Your task to perform on an android device: turn off notifications settings in the gmail app Image 0: 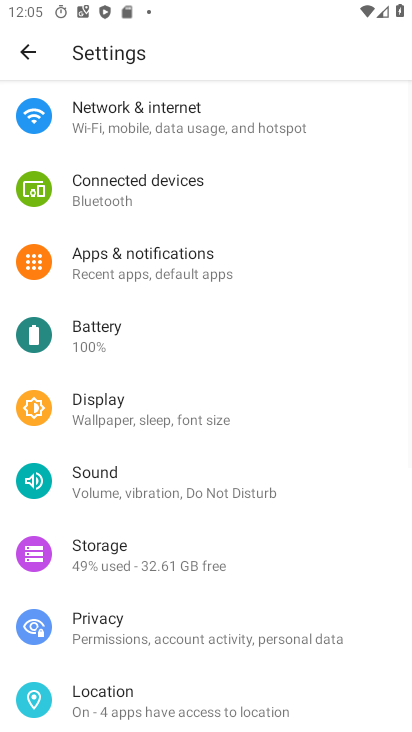
Step 0: press home button
Your task to perform on an android device: turn off notifications settings in the gmail app Image 1: 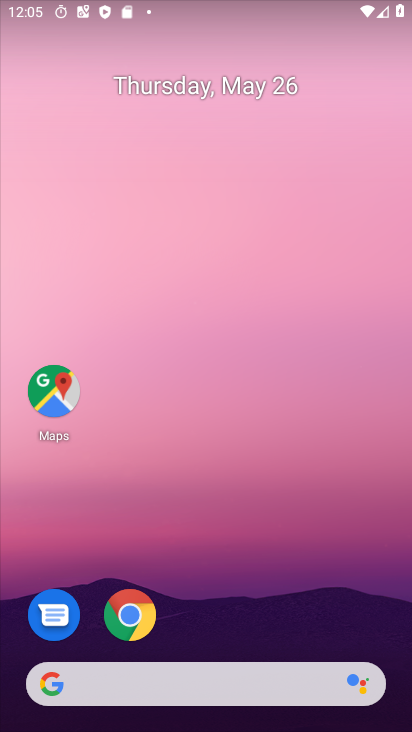
Step 1: drag from (239, 627) to (188, 277)
Your task to perform on an android device: turn off notifications settings in the gmail app Image 2: 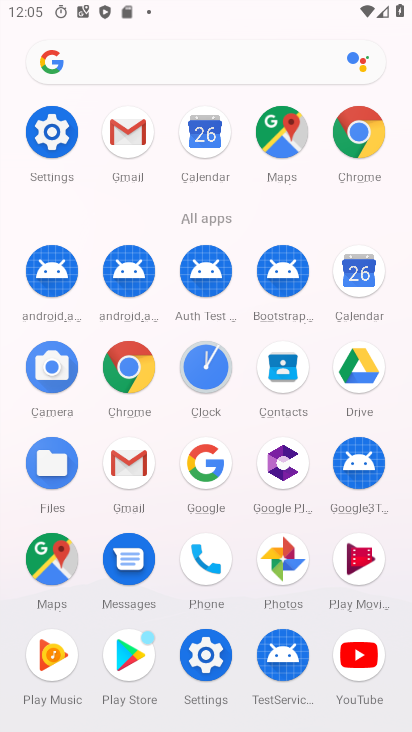
Step 2: click (127, 147)
Your task to perform on an android device: turn off notifications settings in the gmail app Image 3: 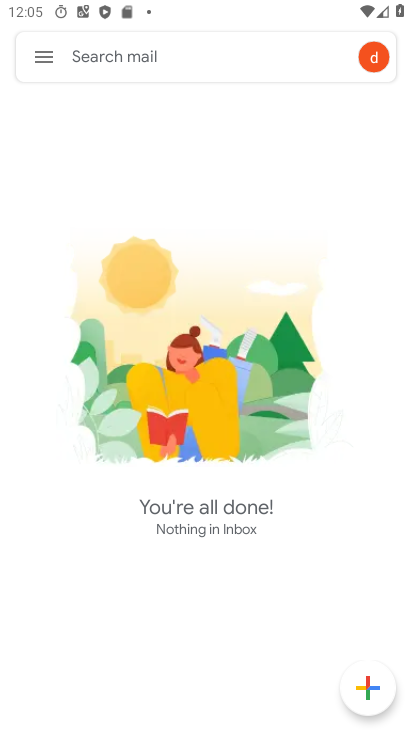
Step 3: click (44, 59)
Your task to perform on an android device: turn off notifications settings in the gmail app Image 4: 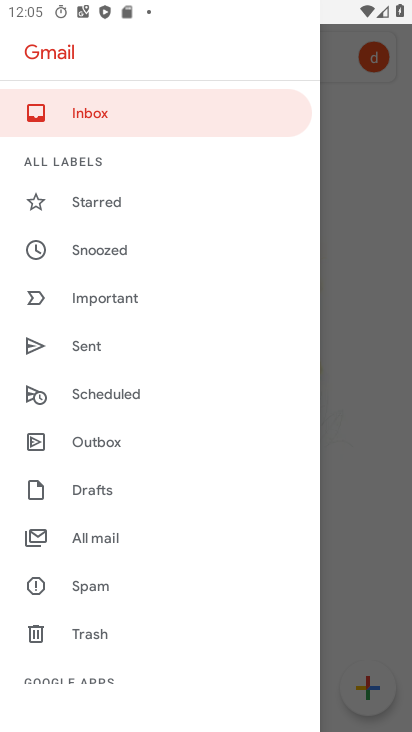
Step 4: drag from (147, 654) to (107, 241)
Your task to perform on an android device: turn off notifications settings in the gmail app Image 5: 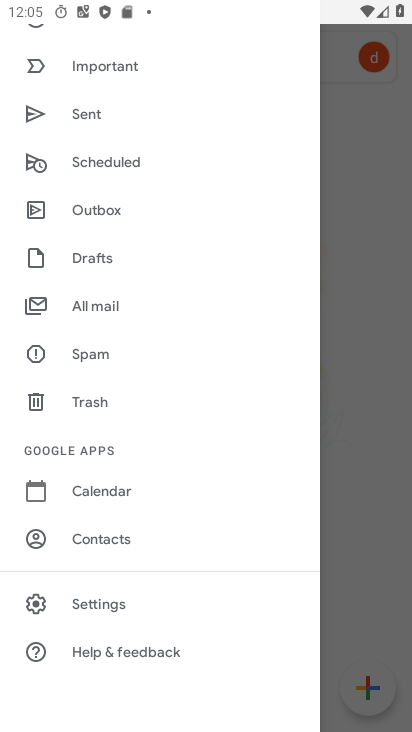
Step 5: click (142, 609)
Your task to perform on an android device: turn off notifications settings in the gmail app Image 6: 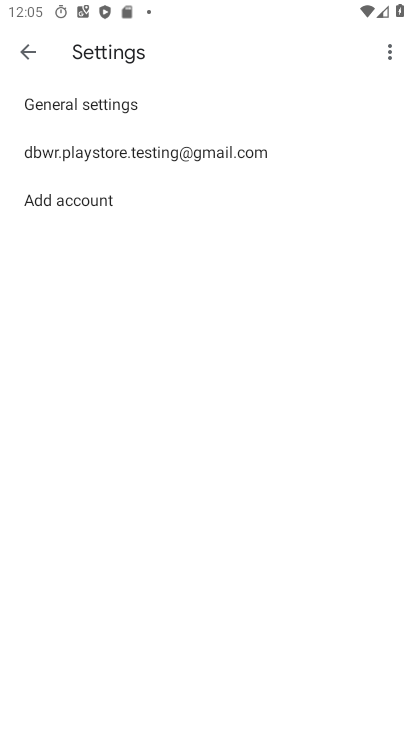
Step 6: click (197, 164)
Your task to perform on an android device: turn off notifications settings in the gmail app Image 7: 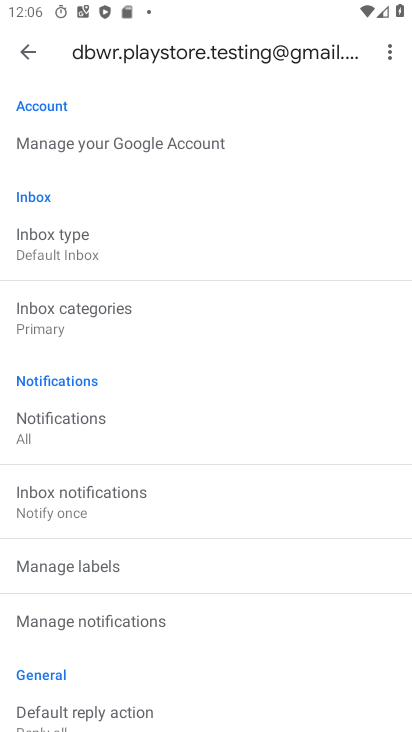
Step 7: click (207, 622)
Your task to perform on an android device: turn off notifications settings in the gmail app Image 8: 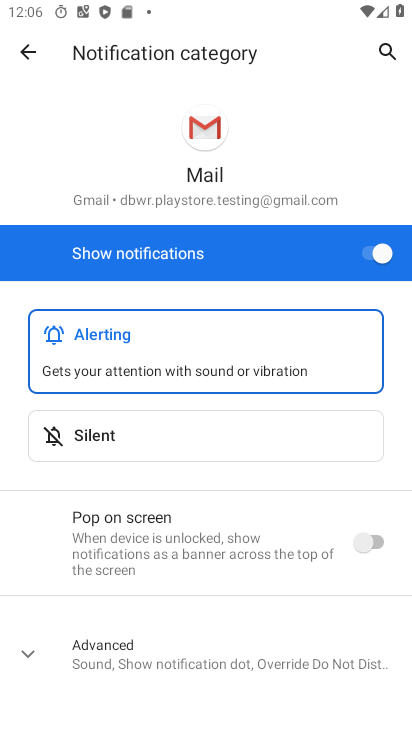
Step 8: click (364, 262)
Your task to perform on an android device: turn off notifications settings in the gmail app Image 9: 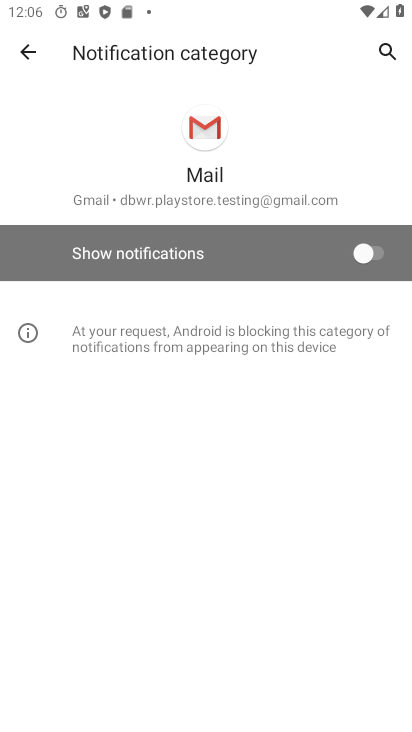
Step 9: task complete